Your task to perform on an android device: open a new tab in the chrome app Image 0: 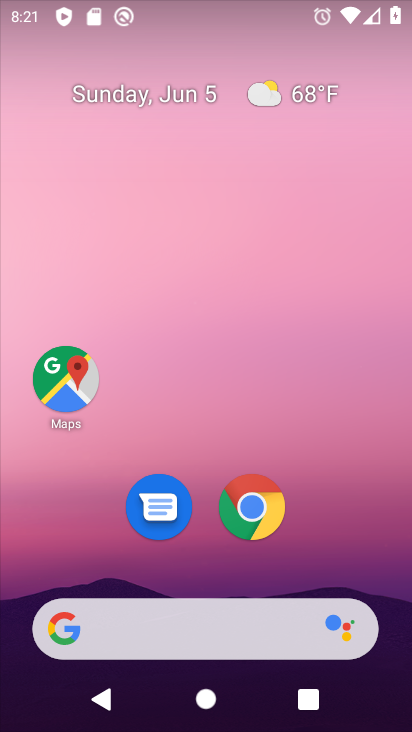
Step 0: click (253, 516)
Your task to perform on an android device: open a new tab in the chrome app Image 1: 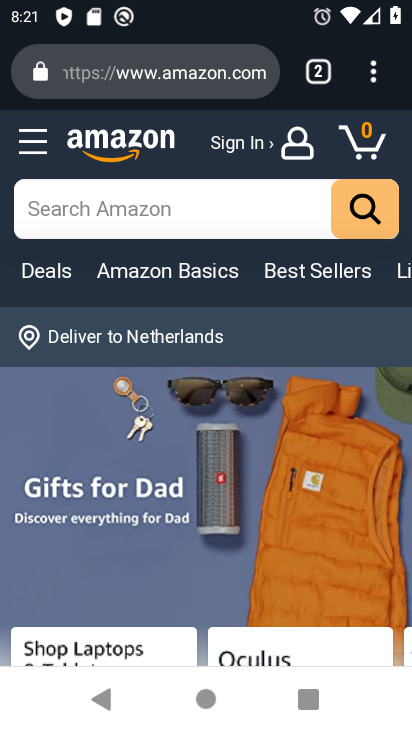
Step 1: click (374, 81)
Your task to perform on an android device: open a new tab in the chrome app Image 2: 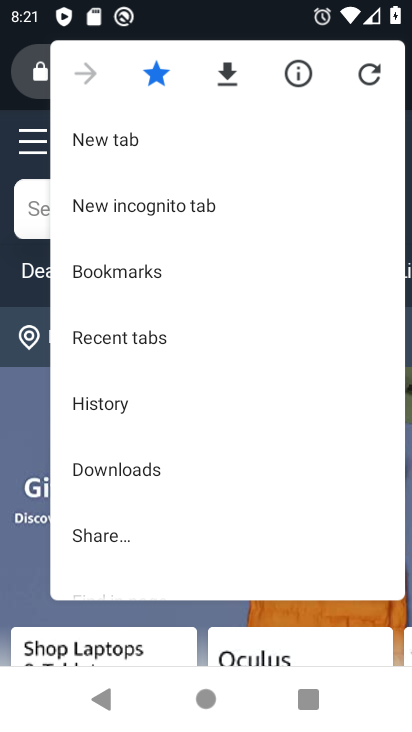
Step 2: click (106, 135)
Your task to perform on an android device: open a new tab in the chrome app Image 3: 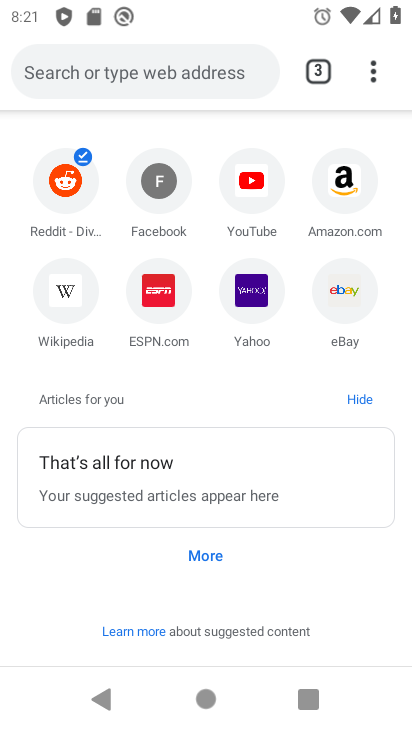
Step 3: task complete